Your task to perform on an android device: open the mobile data screen to see how much data has been used Image 0: 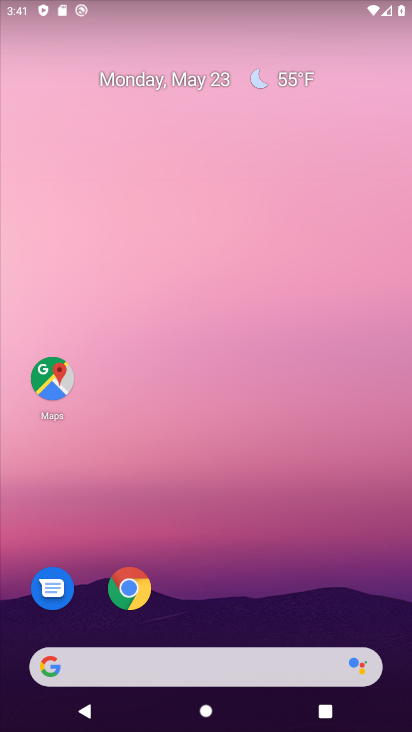
Step 0: drag from (248, 586) to (222, 68)
Your task to perform on an android device: open the mobile data screen to see how much data has been used Image 1: 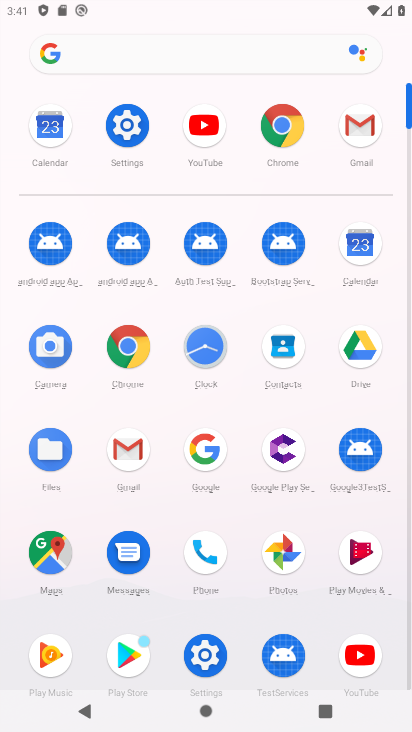
Step 1: click (133, 120)
Your task to perform on an android device: open the mobile data screen to see how much data has been used Image 2: 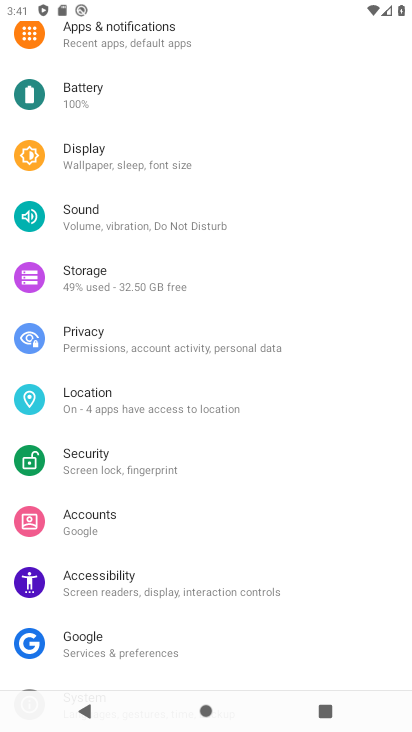
Step 2: drag from (140, 168) to (218, 445)
Your task to perform on an android device: open the mobile data screen to see how much data has been used Image 3: 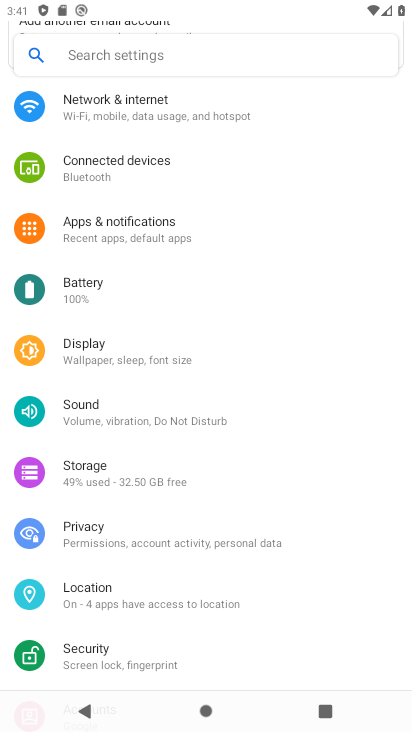
Step 3: click (118, 117)
Your task to perform on an android device: open the mobile data screen to see how much data has been used Image 4: 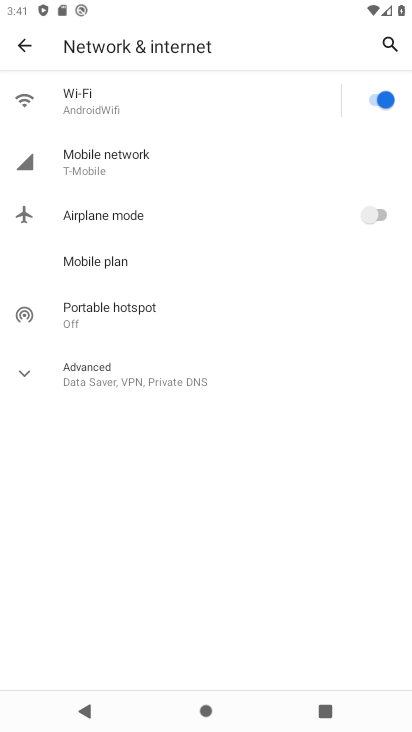
Step 4: click (80, 157)
Your task to perform on an android device: open the mobile data screen to see how much data has been used Image 5: 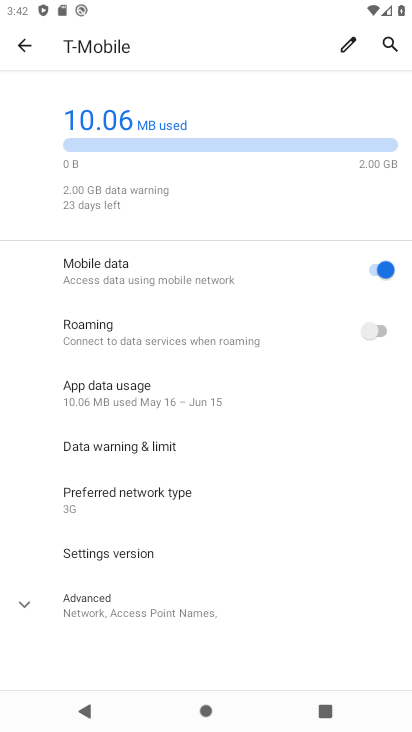
Step 5: task complete